Your task to perform on an android device: set the timer Image 0: 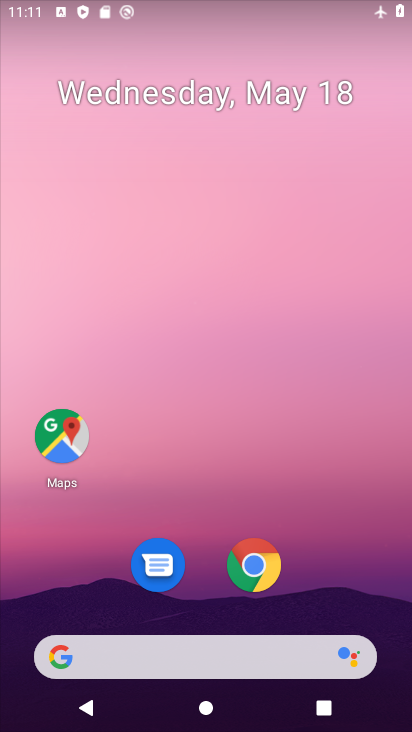
Step 0: drag from (163, 643) to (163, 53)
Your task to perform on an android device: set the timer Image 1: 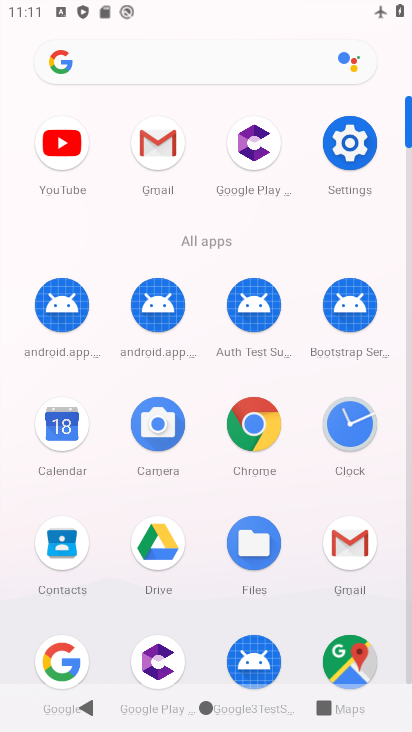
Step 1: click (334, 436)
Your task to perform on an android device: set the timer Image 2: 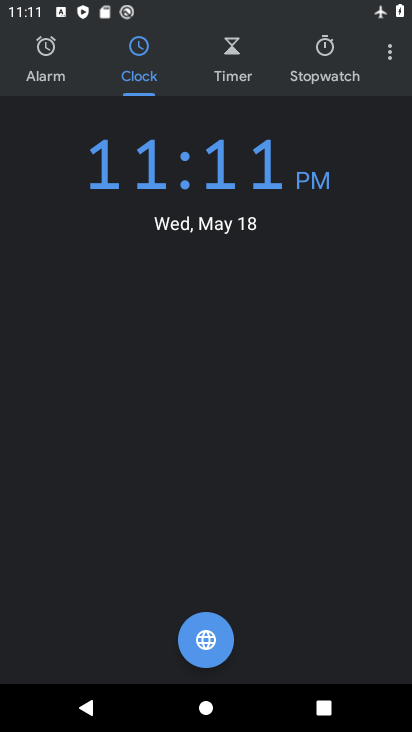
Step 2: click (233, 79)
Your task to perform on an android device: set the timer Image 3: 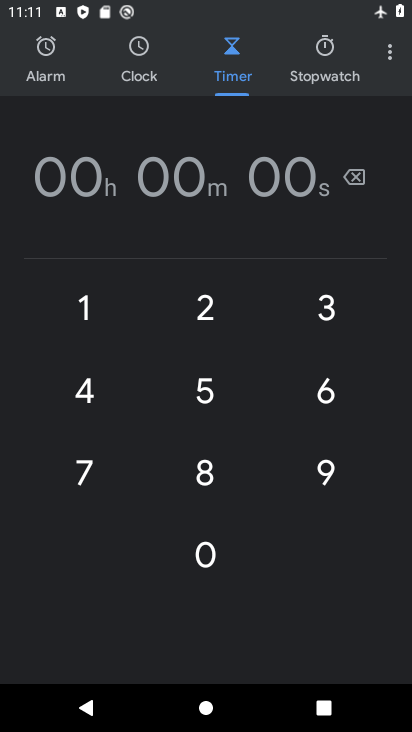
Step 3: click (198, 387)
Your task to perform on an android device: set the timer Image 4: 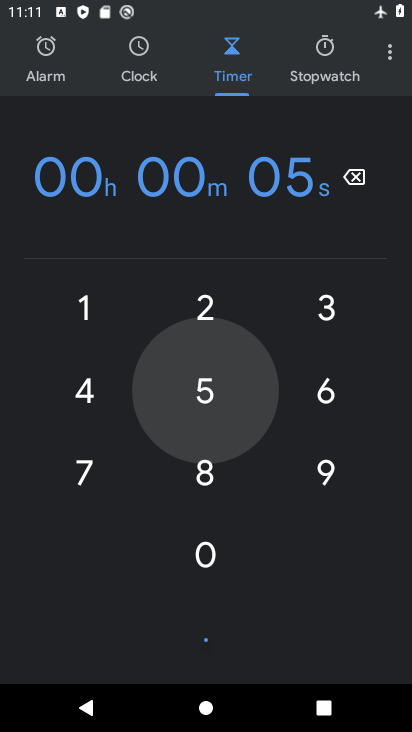
Step 4: click (195, 382)
Your task to perform on an android device: set the timer Image 5: 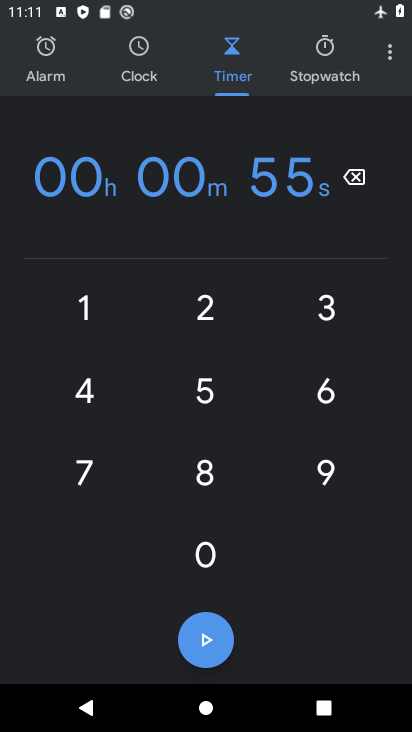
Step 5: click (195, 382)
Your task to perform on an android device: set the timer Image 6: 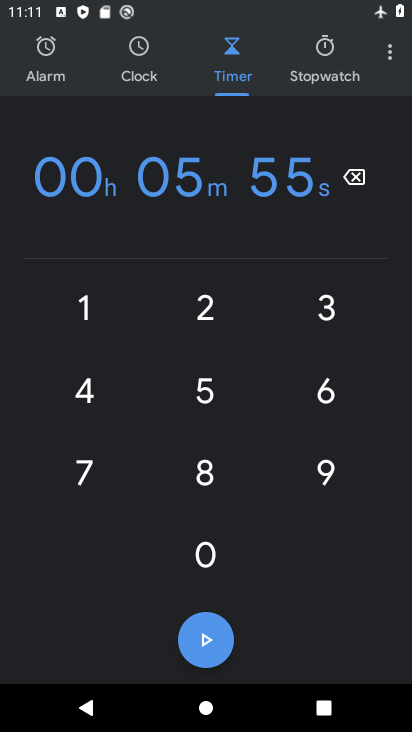
Step 6: click (195, 382)
Your task to perform on an android device: set the timer Image 7: 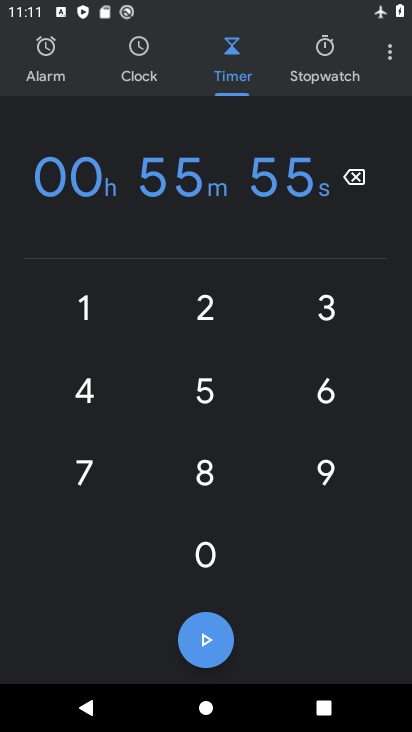
Step 7: click (216, 634)
Your task to perform on an android device: set the timer Image 8: 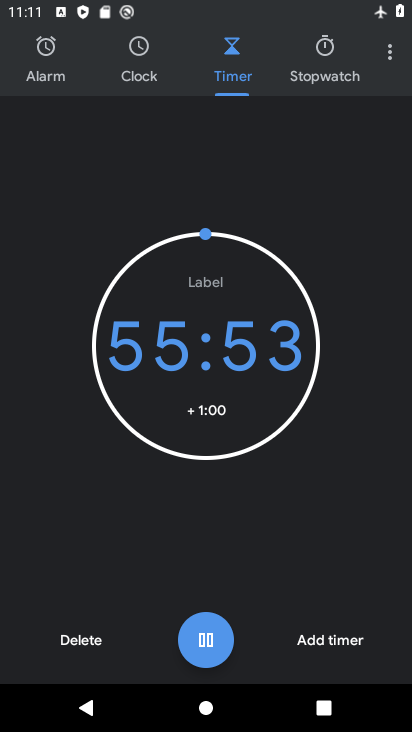
Step 8: task complete